Your task to perform on an android device: Open maps Image 0: 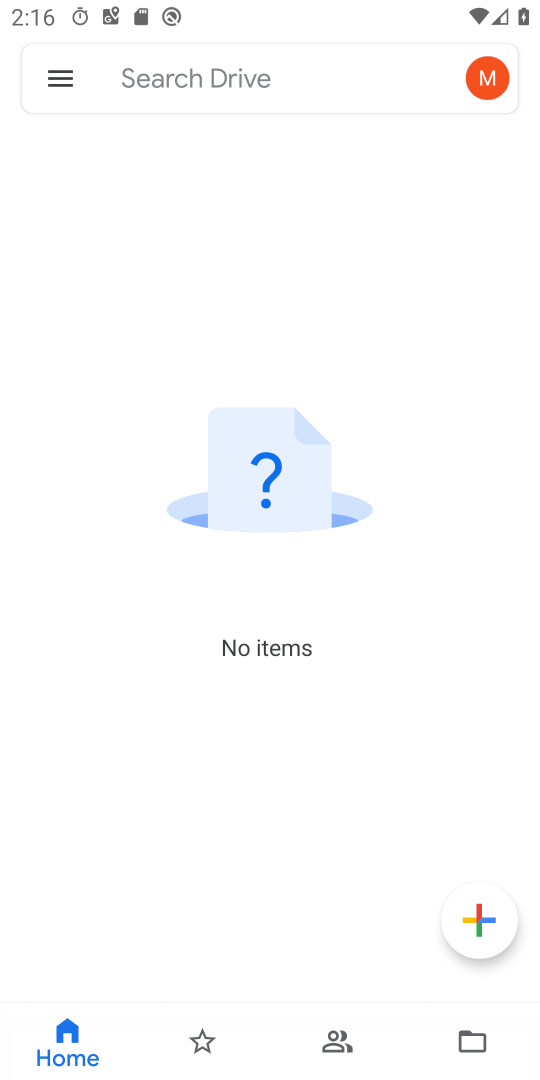
Step 0: press home button
Your task to perform on an android device: Open maps Image 1: 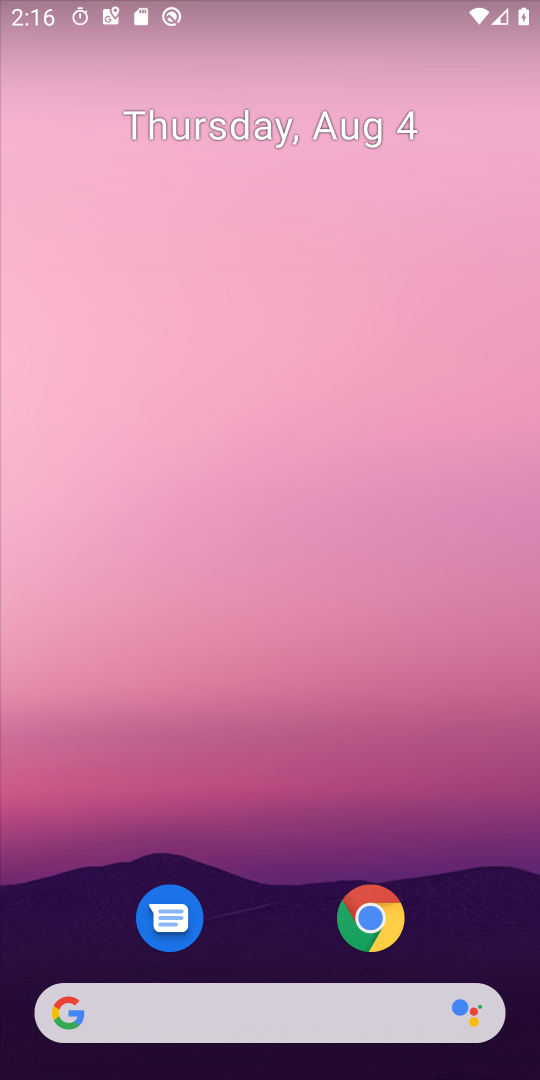
Step 1: drag from (270, 867) to (306, 289)
Your task to perform on an android device: Open maps Image 2: 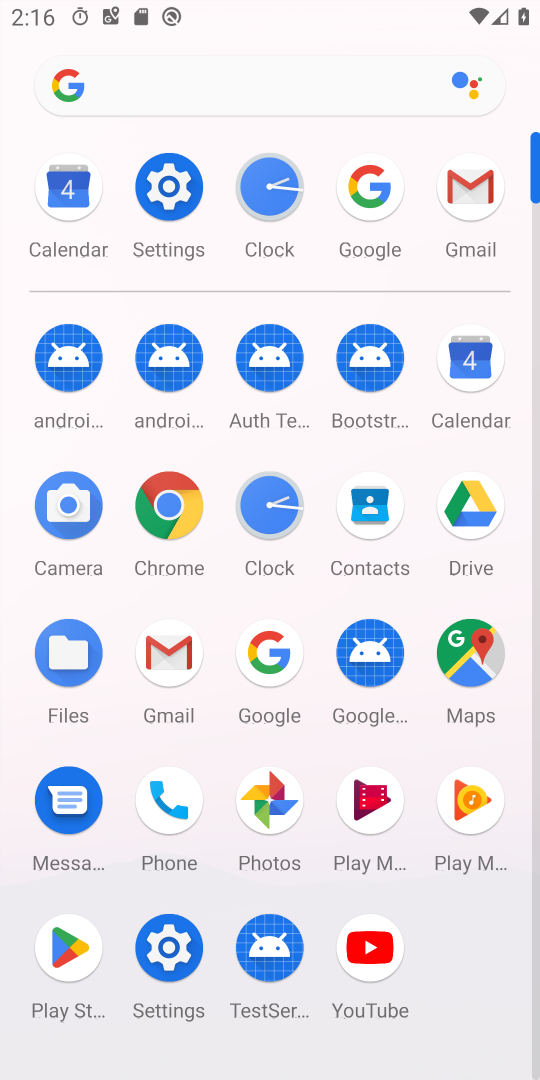
Step 2: click (477, 677)
Your task to perform on an android device: Open maps Image 3: 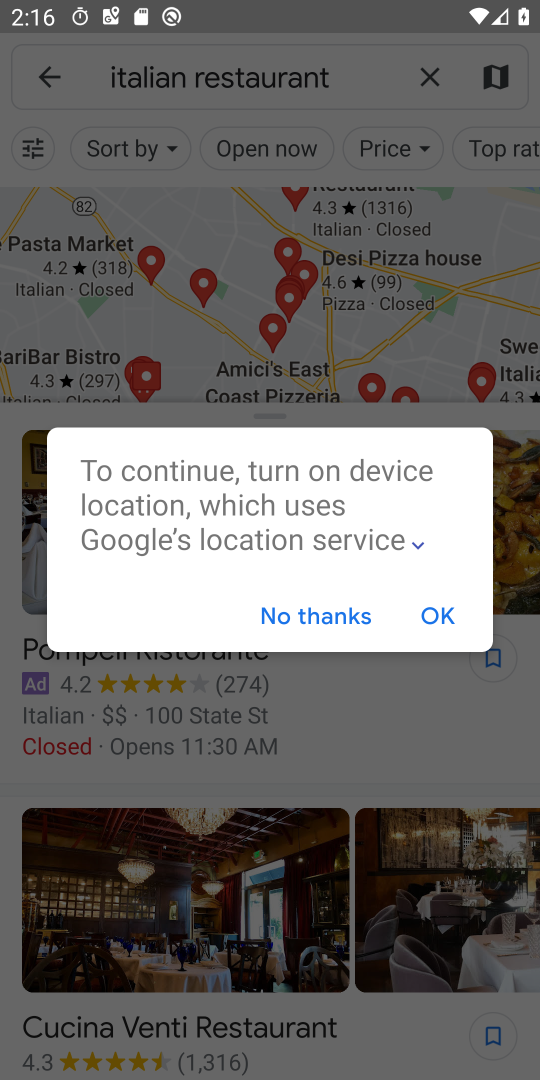
Step 3: task complete